Your task to perform on an android device: choose inbox layout in the gmail app Image 0: 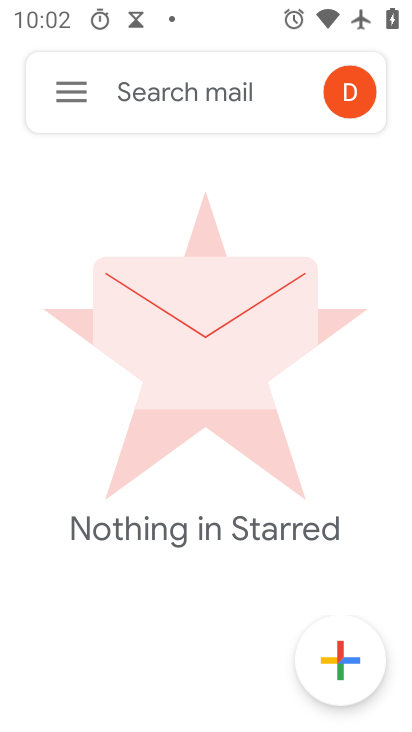
Step 0: press home button
Your task to perform on an android device: choose inbox layout in the gmail app Image 1: 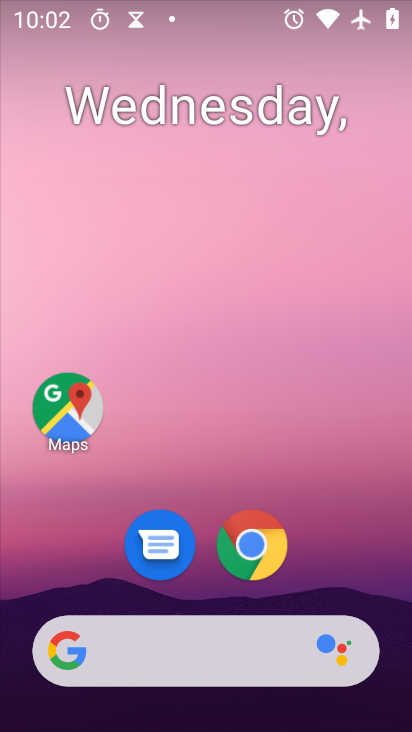
Step 1: drag from (165, 638) to (337, 93)
Your task to perform on an android device: choose inbox layout in the gmail app Image 2: 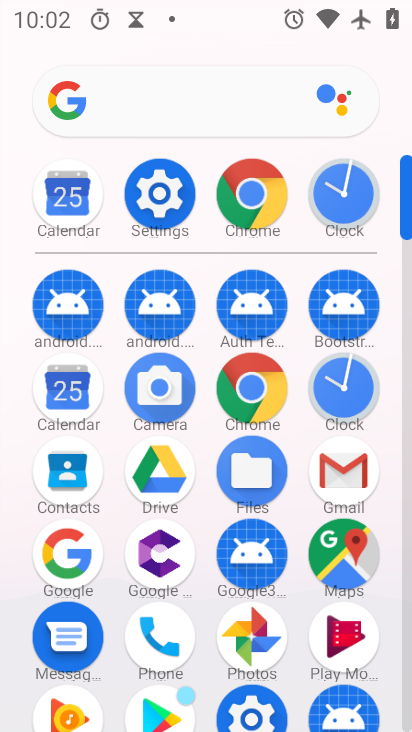
Step 2: click (343, 484)
Your task to perform on an android device: choose inbox layout in the gmail app Image 3: 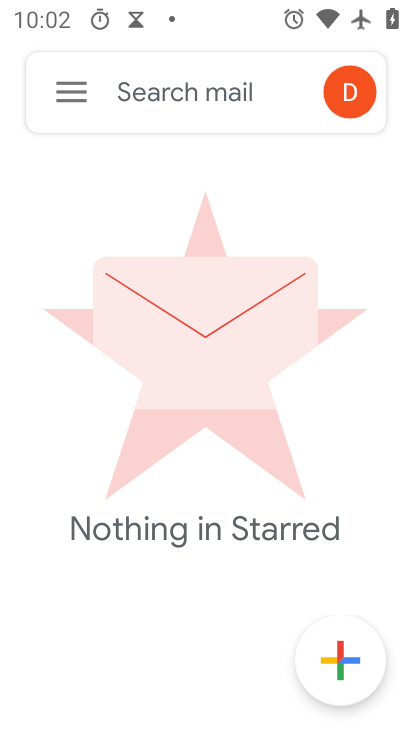
Step 3: click (73, 91)
Your task to perform on an android device: choose inbox layout in the gmail app Image 4: 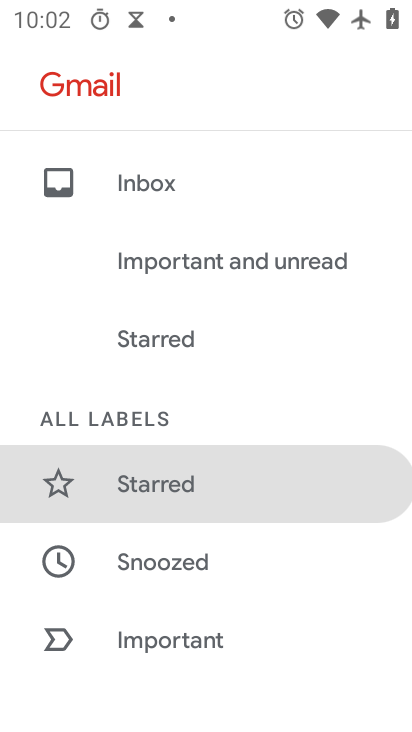
Step 4: drag from (279, 654) to (349, 60)
Your task to perform on an android device: choose inbox layout in the gmail app Image 5: 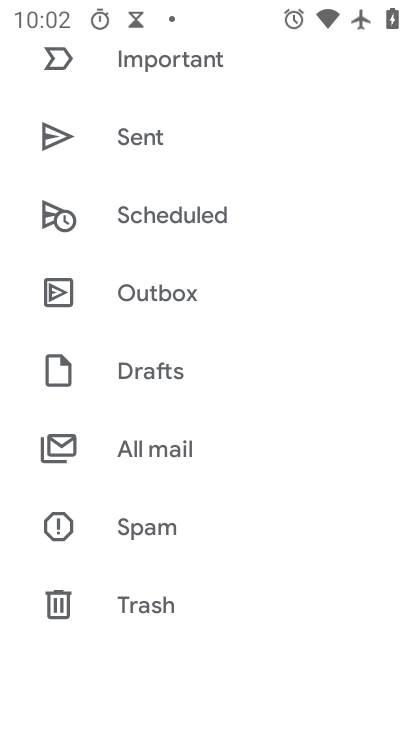
Step 5: drag from (269, 563) to (376, 84)
Your task to perform on an android device: choose inbox layout in the gmail app Image 6: 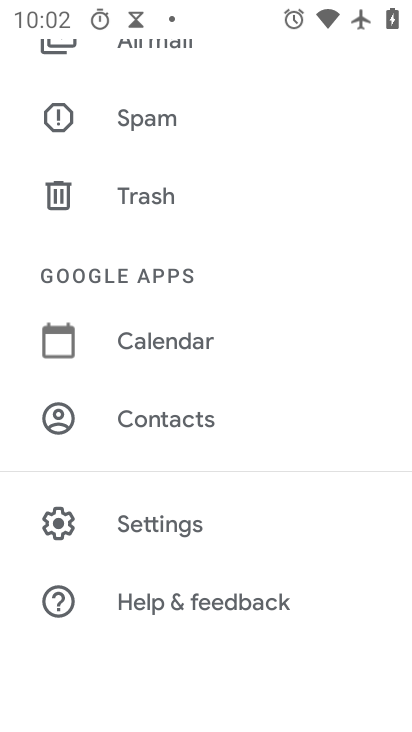
Step 6: click (171, 521)
Your task to perform on an android device: choose inbox layout in the gmail app Image 7: 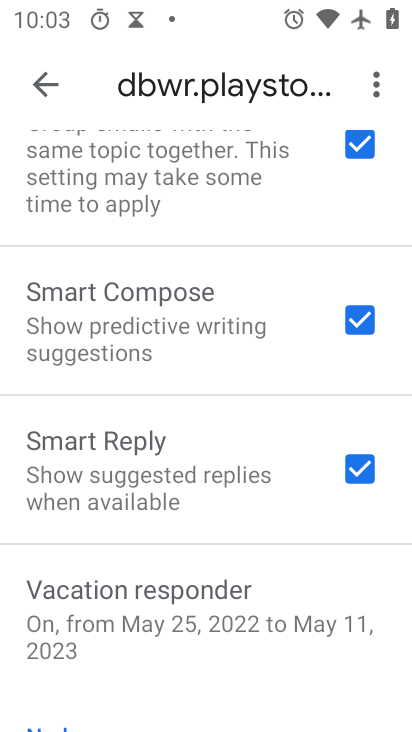
Step 7: drag from (259, 226) to (202, 654)
Your task to perform on an android device: choose inbox layout in the gmail app Image 8: 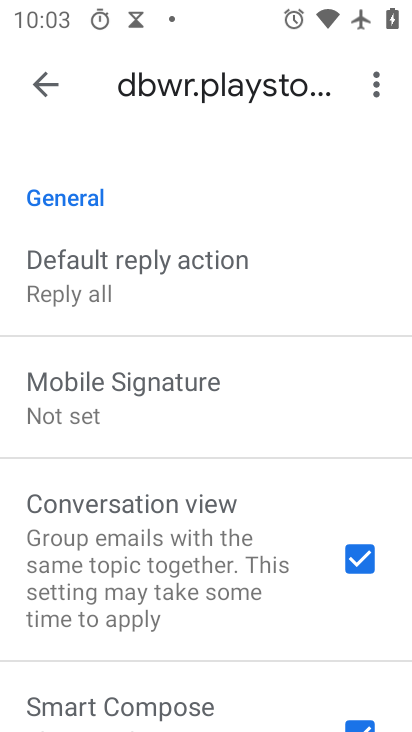
Step 8: drag from (206, 214) to (194, 670)
Your task to perform on an android device: choose inbox layout in the gmail app Image 9: 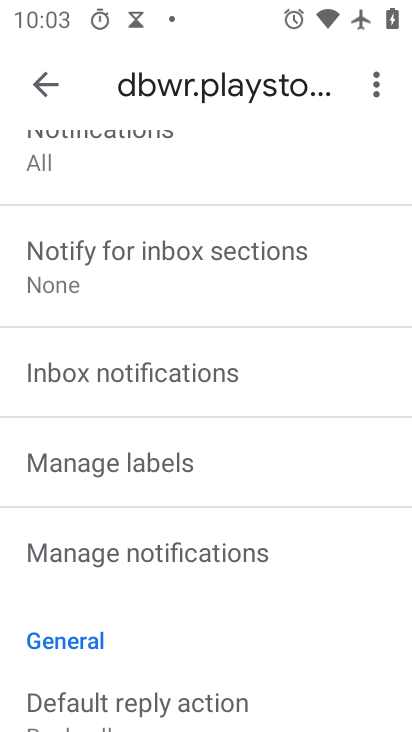
Step 9: drag from (290, 189) to (278, 638)
Your task to perform on an android device: choose inbox layout in the gmail app Image 10: 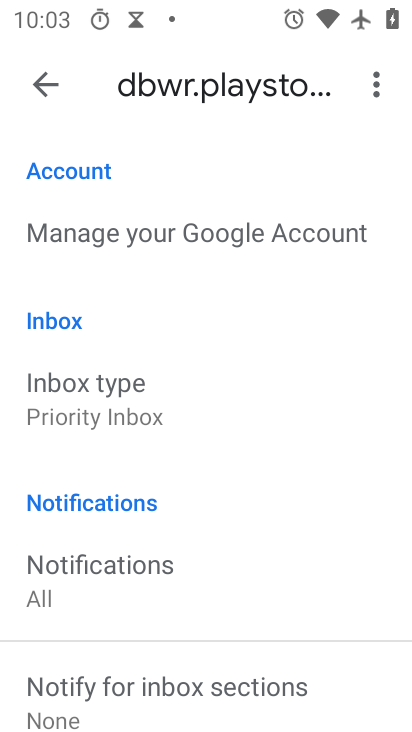
Step 10: click (125, 418)
Your task to perform on an android device: choose inbox layout in the gmail app Image 11: 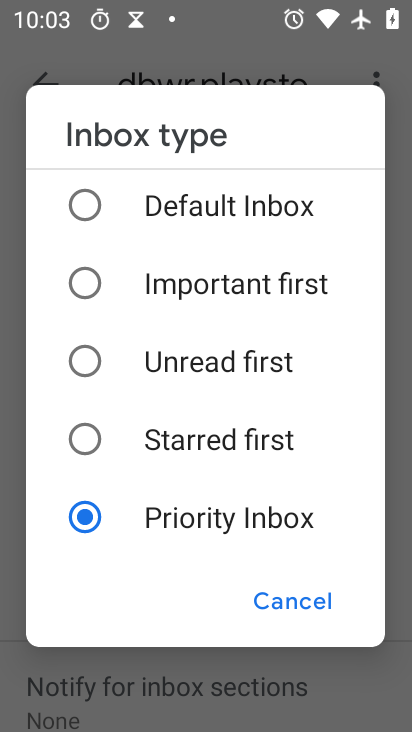
Step 11: click (92, 206)
Your task to perform on an android device: choose inbox layout in the gmail app Image 12: 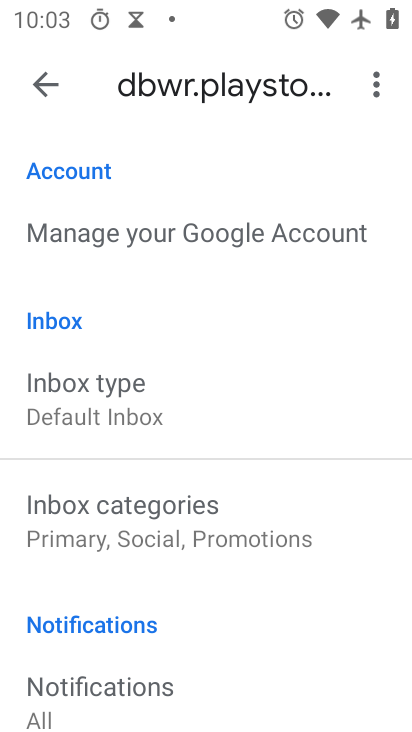
Step 12: task complete